Your task to perform on an android device: Go to location settings Image 0: 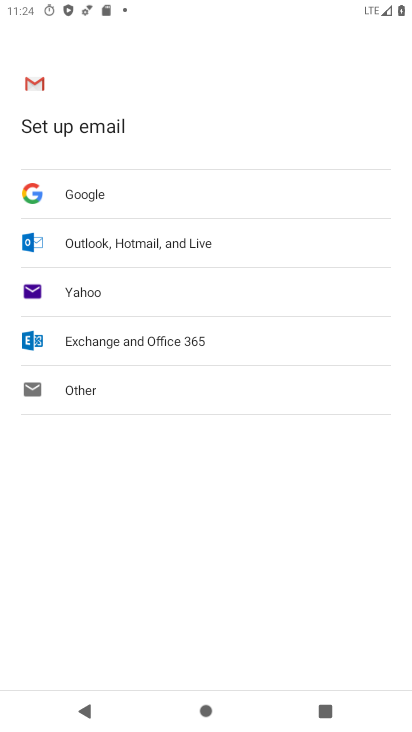
Step 0: press home button
Your task to perform on an android device: Go to location settings Image 1: 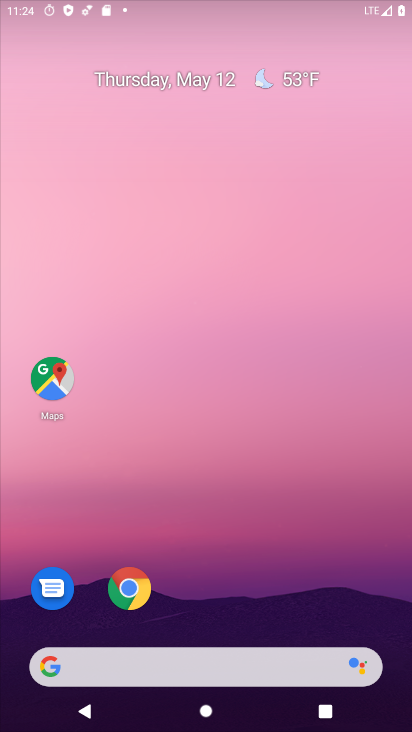
Step 1: drag from (288, 589) to (197, 195)
Your task to perform on an android device: Go to location settings Image 2: 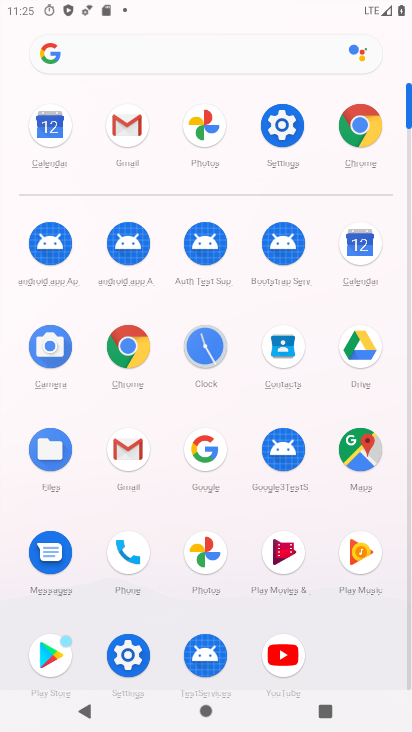
Step 2: click (282, 117)
Your task to perform on an android device: Go to location settings Image 3: 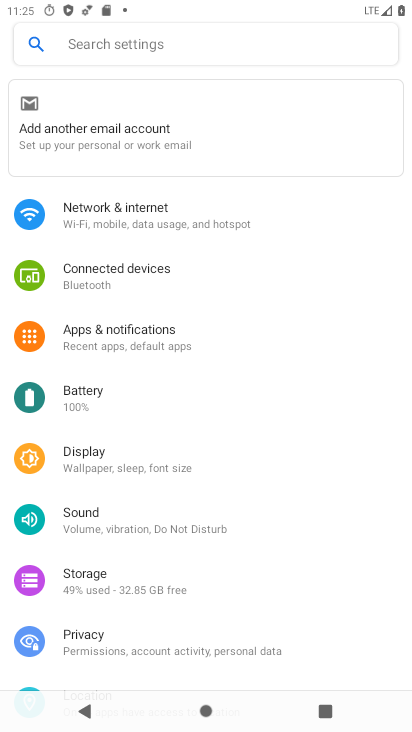
Step 3: drag from (136, 624) to (160, 290)
Your task to perform on an android device: Go to location settings Image 4: 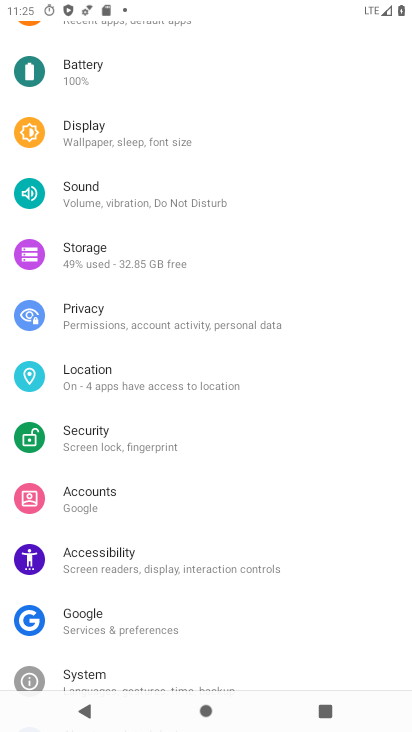
Step 4: click (95, 375)
Your task to perform on an android device: Go to location settings Image 5: 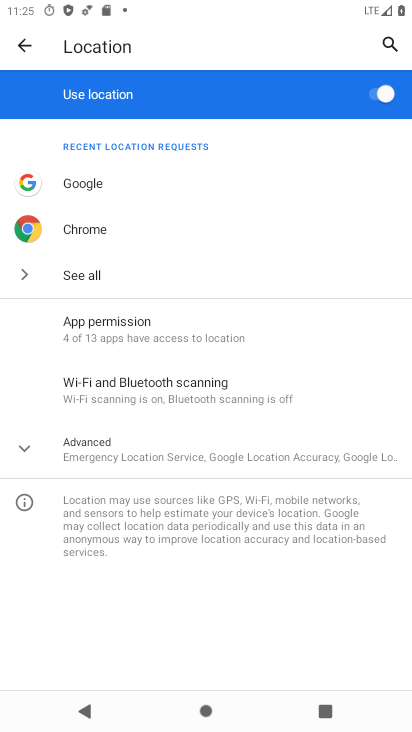
Step 5: task complete